Your task to perform on an android device: turn off priority inbox in the gmail app Image 0: 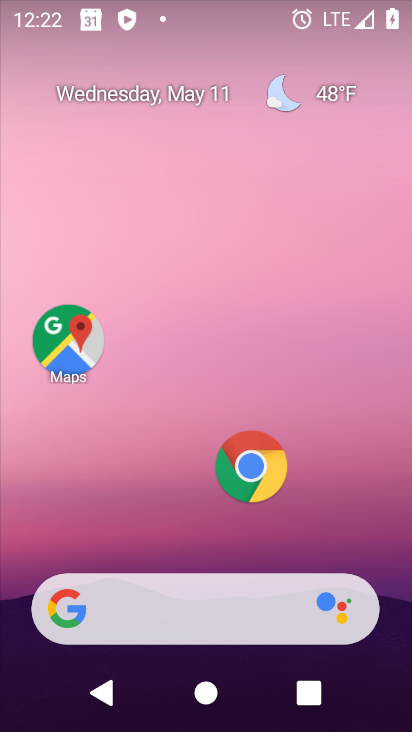
Step 0: drag from (215, 392) to (282, 95)
Your task to perform on an android device: turn off priority inbox in the gmail app Image 1: 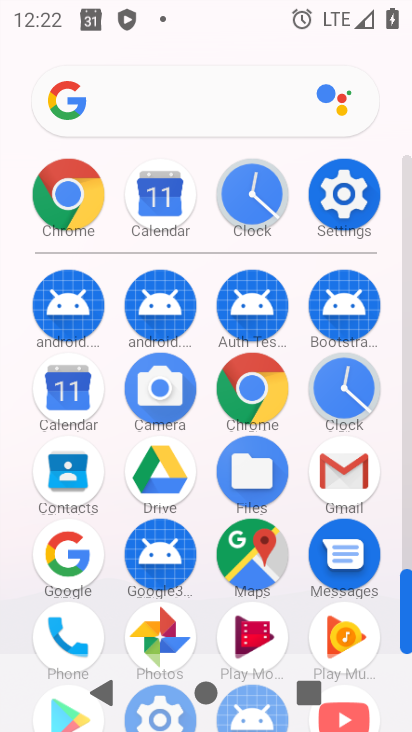
Step 1: click (343, 468)
Your task to perform on an android device: turn off priority inbox in the gmail app Image 2: 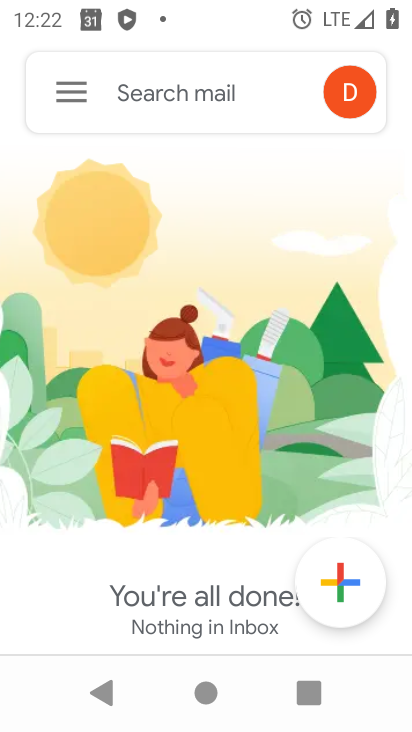
Step 2: click (70, 90)
Your task to perform on an android device: turn off priority inbox in the gmail app Image 3: 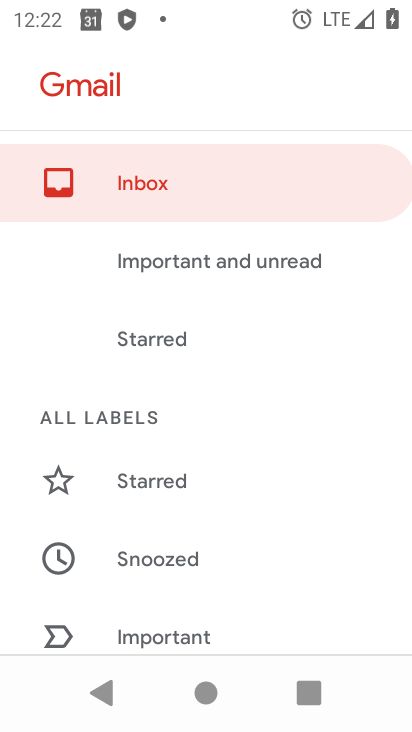
Step 3: drag from (237, 584) to (346, 47)
Your task to perform on an android device: turn off priority inbox in the gmail app Image 4: 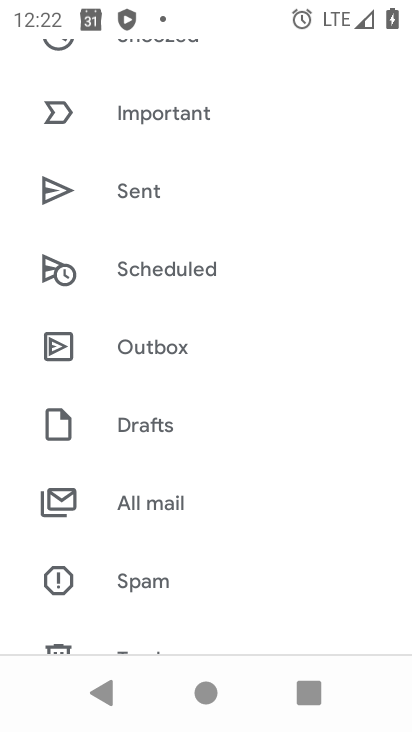
Step 4: drag from (221, 573) to (324, 2)
Your task to perform on an android device: turn off priority inbox in the gmail app Image 5: 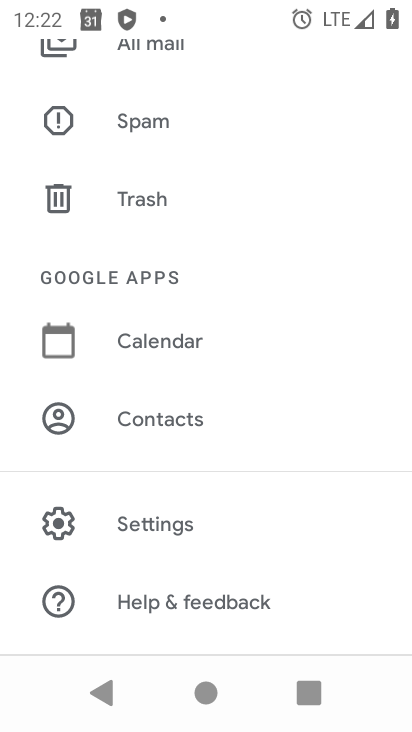
Step 5: click (187, 525)
Your task to perform on an android device: turn off priority inbox in the gmail app Image 6: 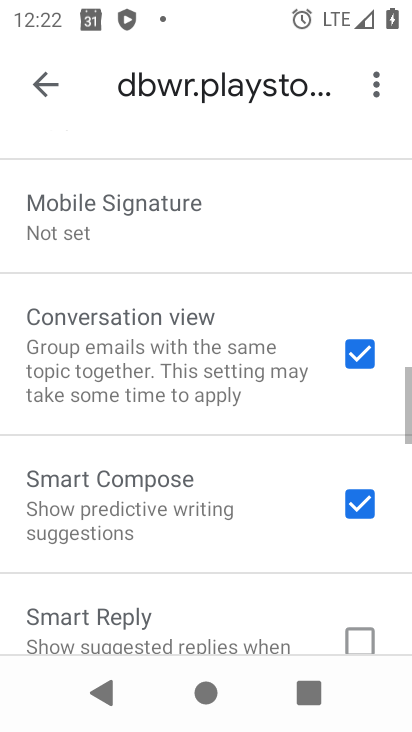
Step 6: drag from (184, 615) to (304, 38)
Your task to perform on an android device: turn off priority inbox in the gmail app Image 7: 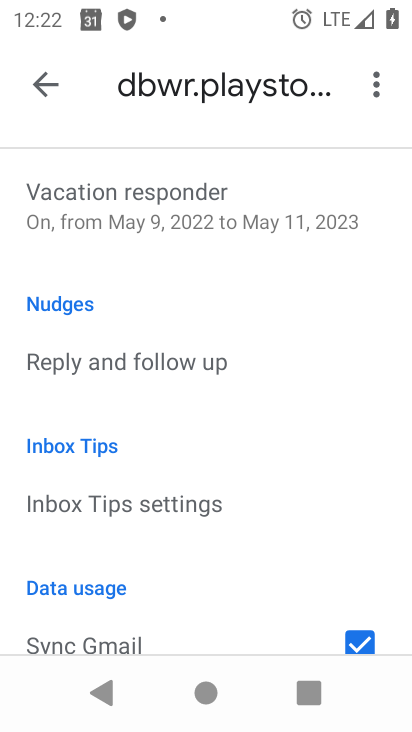
Step 7: drag from (214, 304) to (155, 712)
Your task to perform on an android device: turn off priority inbox in the gmail app Image 8: 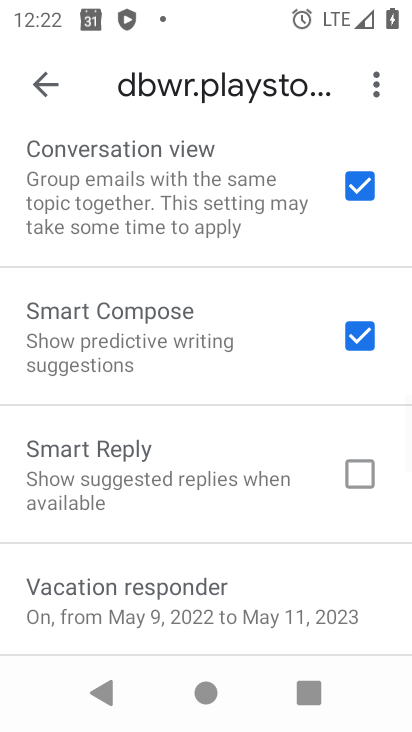
Step 8: drag from (174, 232) to (165, 712)
Your task to perform on an android device: turn off priority inbox in the gmail app Image 9: 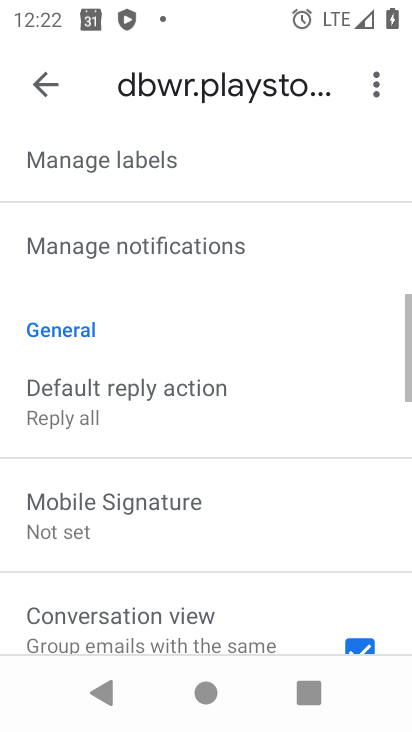
Step 9: drag from (189, 229) to (179, 502)
Your task to perform on an android device: turn off priority inbox in the gmail app Image 10: 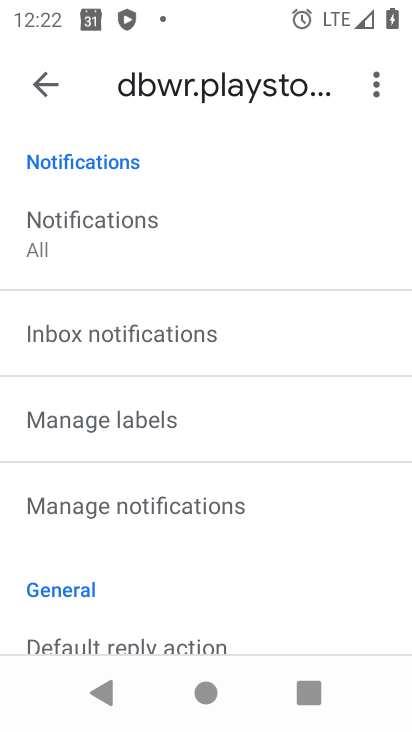
Step 10: drag from (158, 272) to (126, 622)
Your task to perform on an android device: turn off priority inbox in the gmail app Image 11: 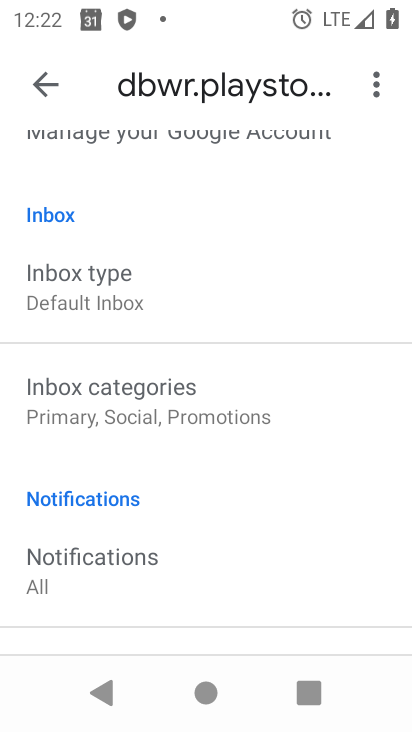
Step 11: click (100, 261)
Your task to perform on an android device: turn off priority inbox in the gmail app Image 12: 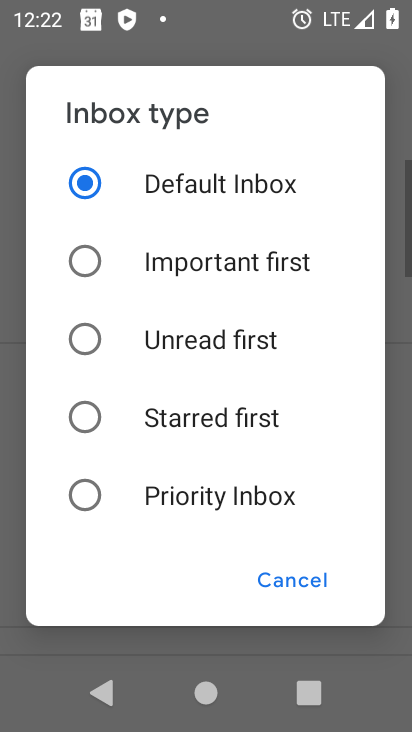
Step 12: click (86, 180)
Your task to perform on an android device: turn off priority inbox in the gmail app Image 13: 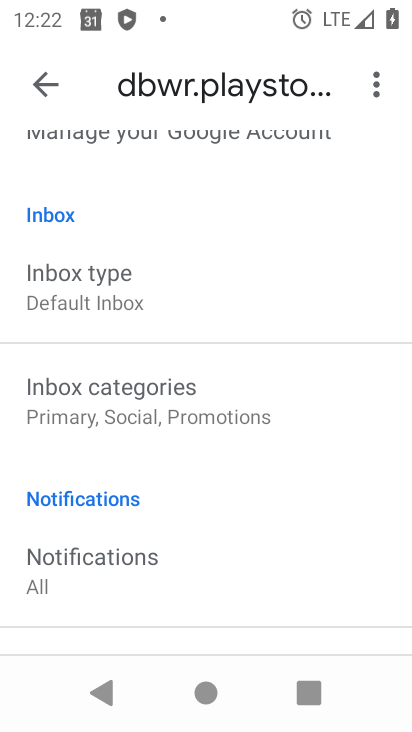
Step 13: task complete